Your task to perform on an android device: Open maps Image 0: 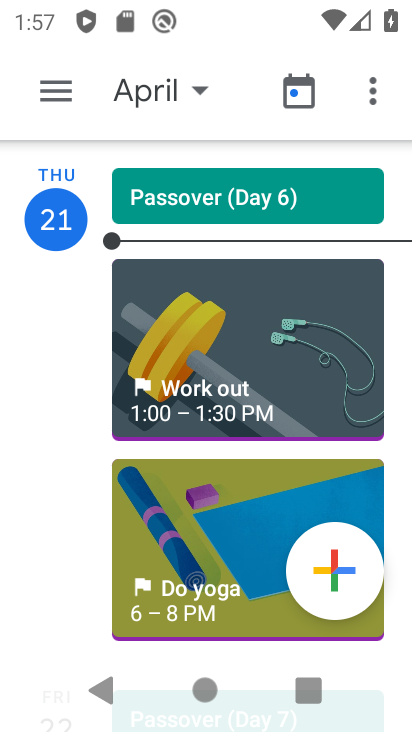
Step 0: press home button
Your task to perform on an android device: Open maps Image 1: 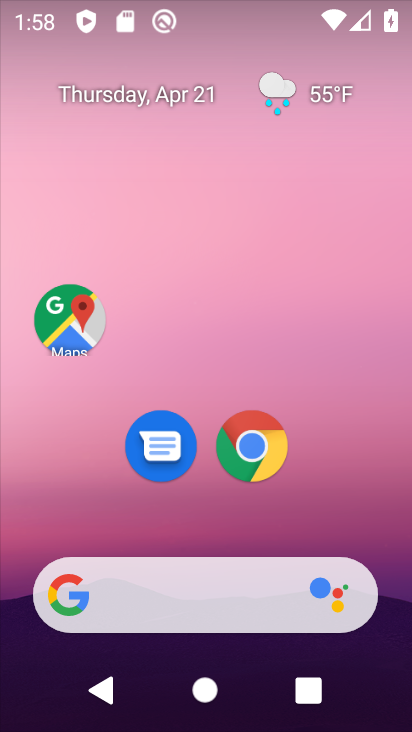
Step 1: drag from (214, 722) to (194, 229)
Your task to perform on an android device: Open maps Image 2: 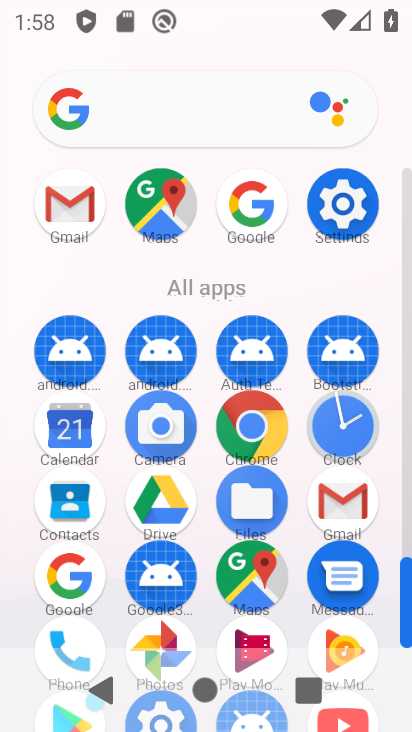
Step 2: click (252, 574)
Your task to perform on an android device: Open maps Image 3: 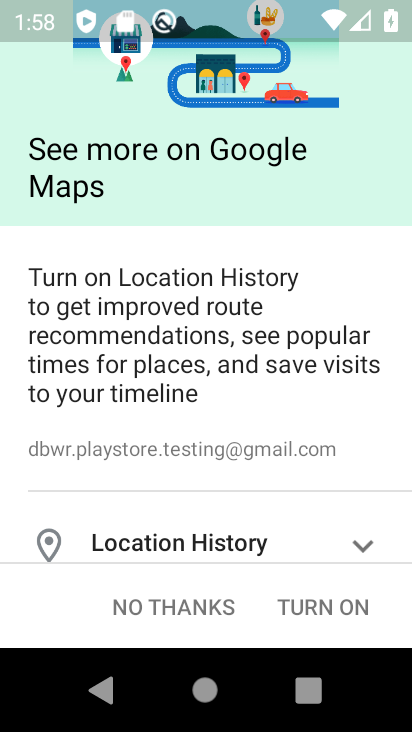
Step 3: click (198, 598)
Your task to perform on an android device: Open maps Image 4: 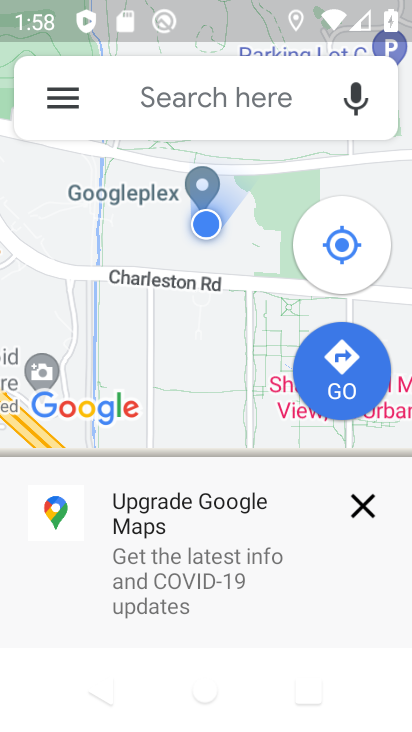
Step 4: task complete